Your task to perform on an android device: Open Maps and search for coffee Image 0: 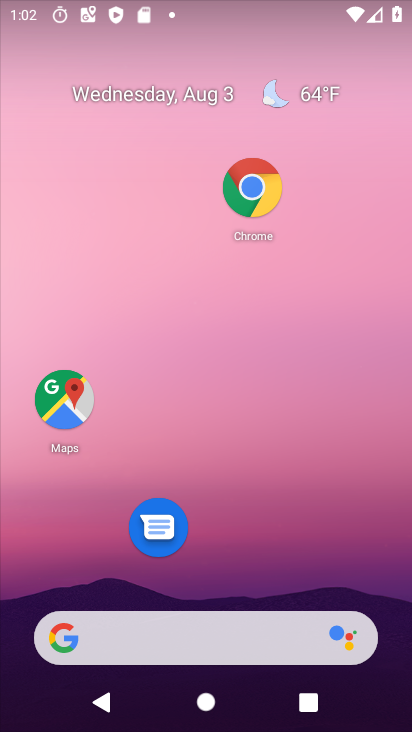
Step 0: click (62, 374)
Your task to perform on an android device: Open Maps and search for coffee Image 1: 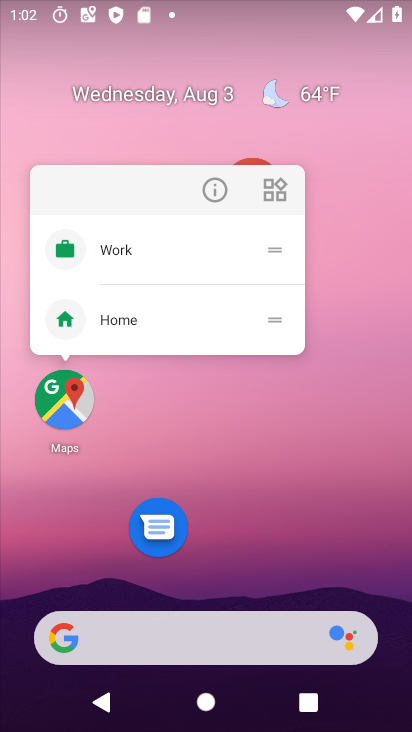
Step 1: click (72, 408)
Your task to perform on an android device: Open Maps and search for coffee Image 2: 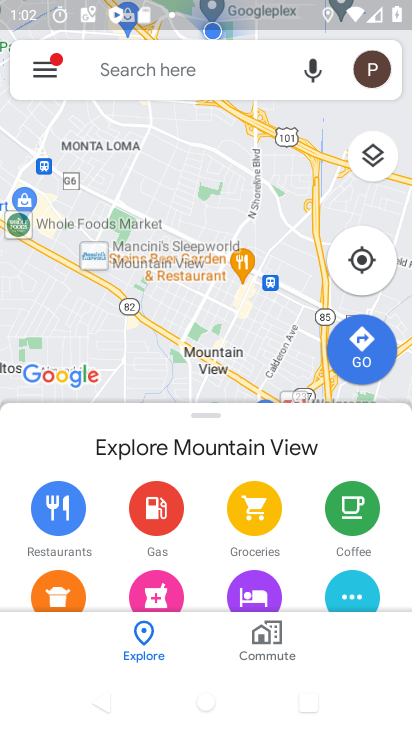
Step 2: click (155, 79)
Your task to perform on an android device: Open Maps and search for coffee Image 3: 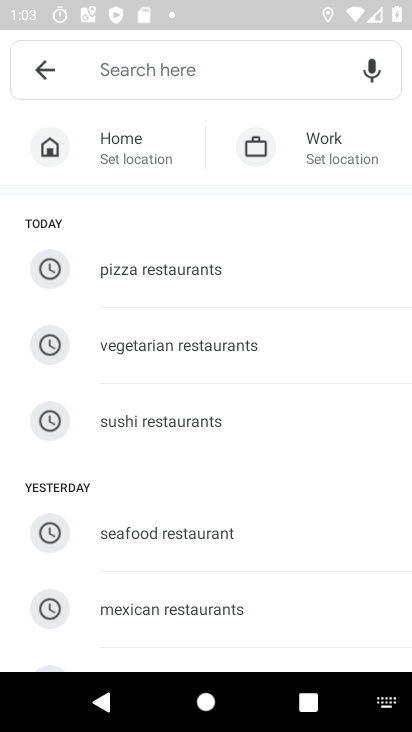
Step 3: type "coffee"
Your task to perform on an android device: Open Maps and search for coffee Image 4: 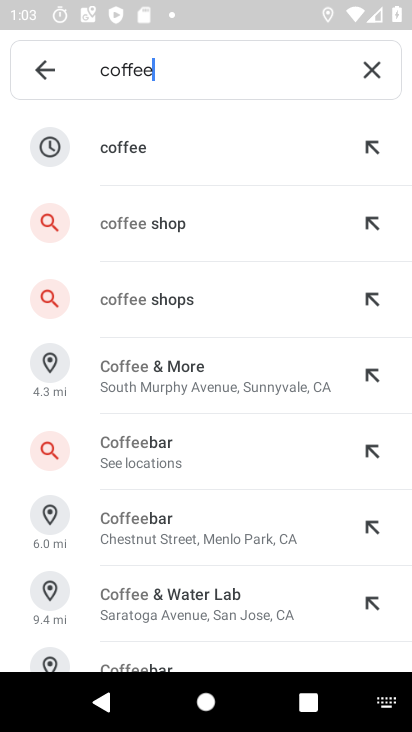
Step 4: click (174, 140)
Your task to perform on an android device: Open Maps and search for coffee Image 5: 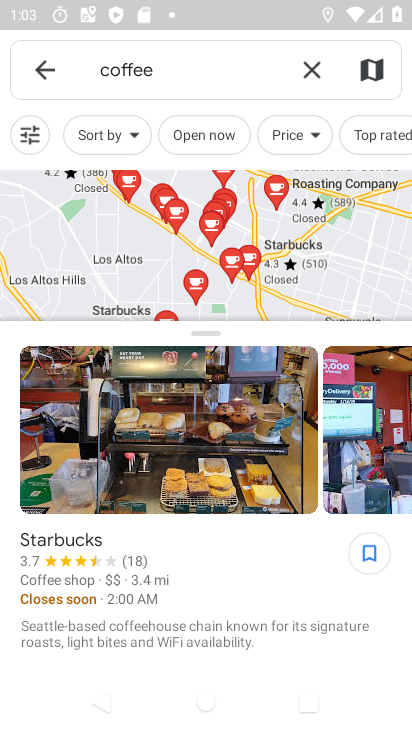
Step 5: task complete